Your task to perform on an android device: Open settings Image 0: 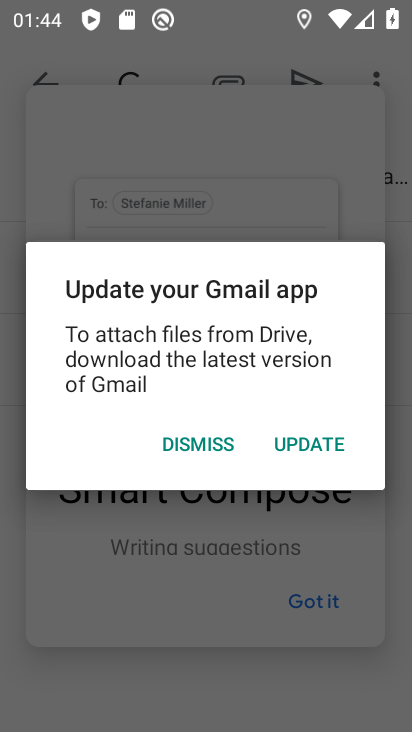
Step 0: press home button
Your task to perform on an android device: Open settings Image 1: 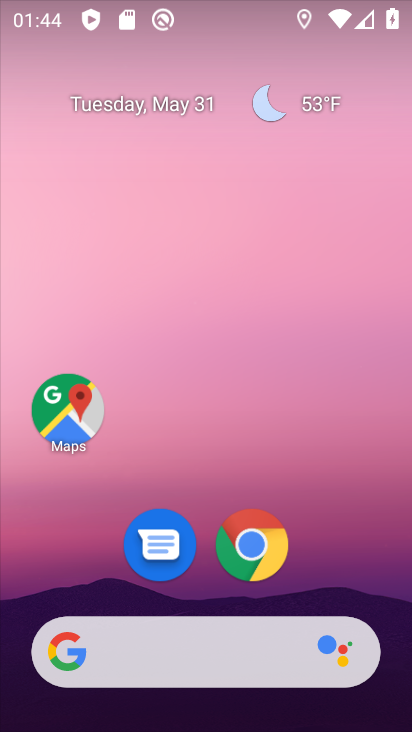
Step 1: drag from (356, 589) to (339, 99)
Your task to perform on an android device: Open settings Image 2: 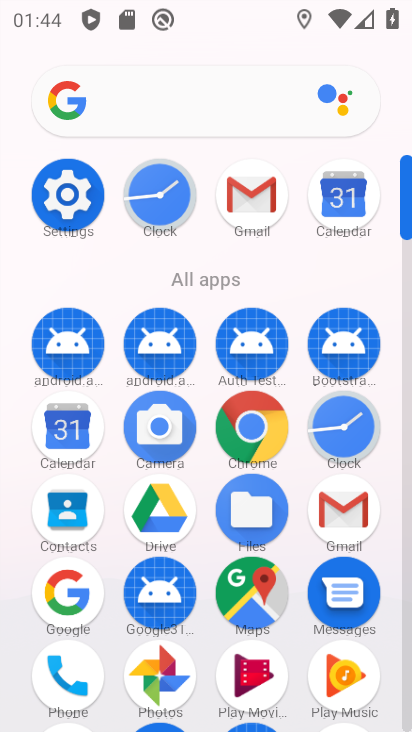
Step 2: click (87, 199)
Your task to perform on an android device: Open settings Image 3: 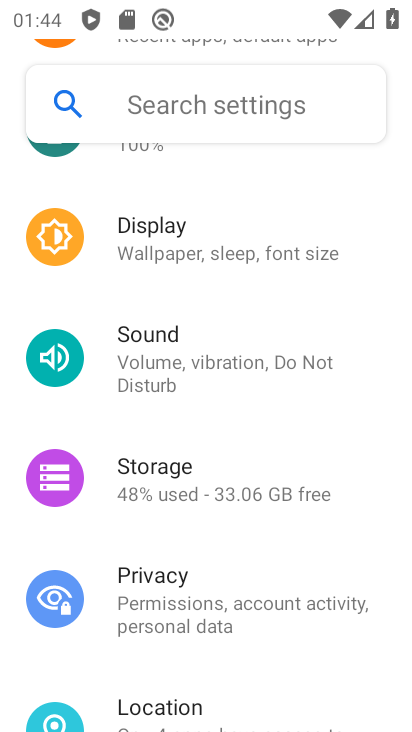
Step 3: task complete